Your task to perform on an android device: turn off notifications settings in the gmail app Image 0: 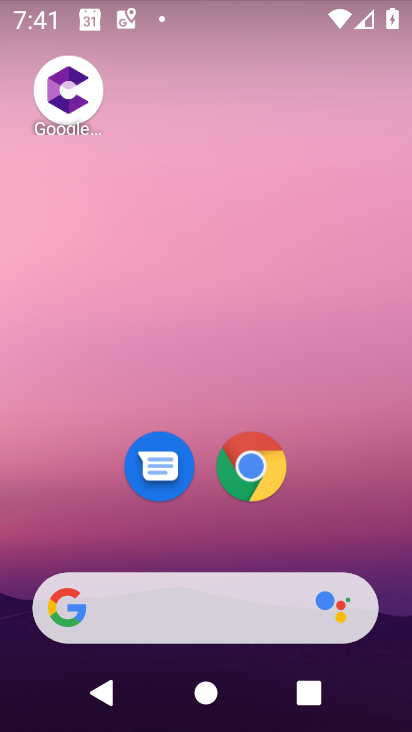
Step 0: drag from (201, 548) to (205, 101)
Your task to perform on an android device: turn off notifications settings in the gmail app Image 1: 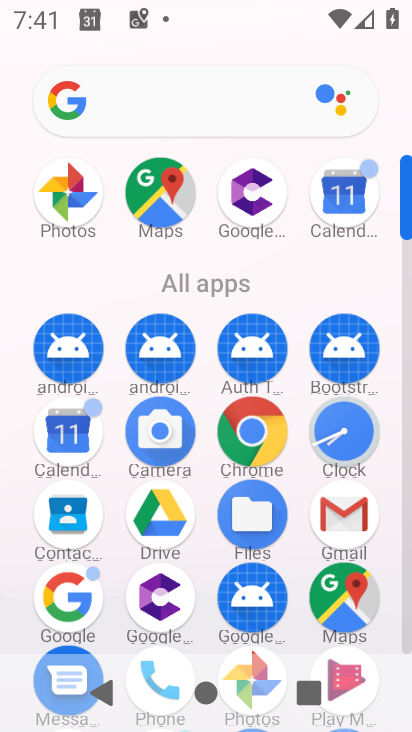
Step 1: click (340, 514)
Your task to perform on an android device: turn off notifications settings in the gmail app Image 2: 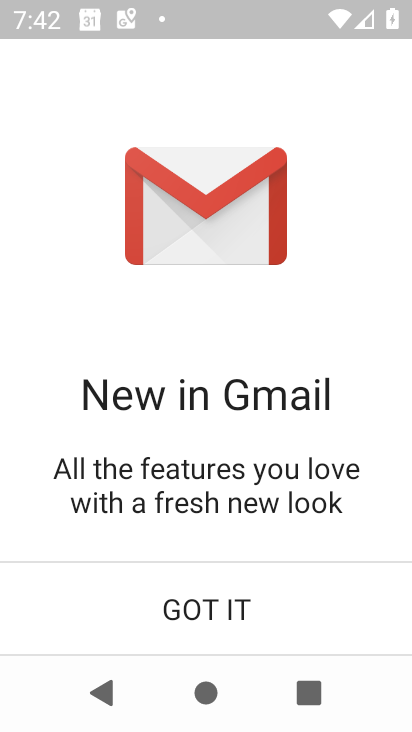
Step 2: click (210, 611)
Your task to perform on an android device: turn off notifications settings in the gmail app Image 3: 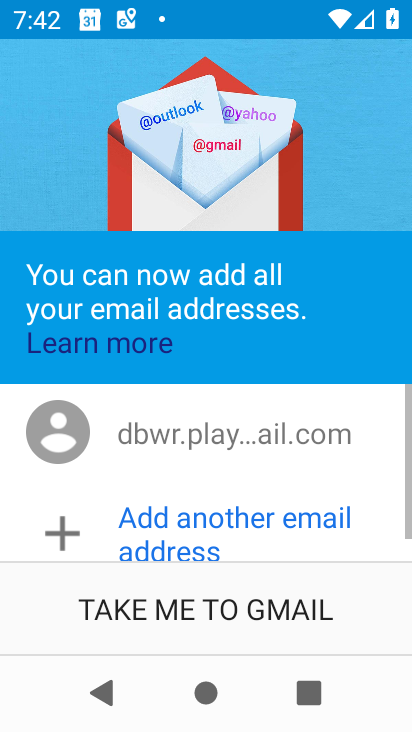
Step 3: click (210, 611)
Your task to perform on an android device: turn off notifications settings in the gmail app Image 4: 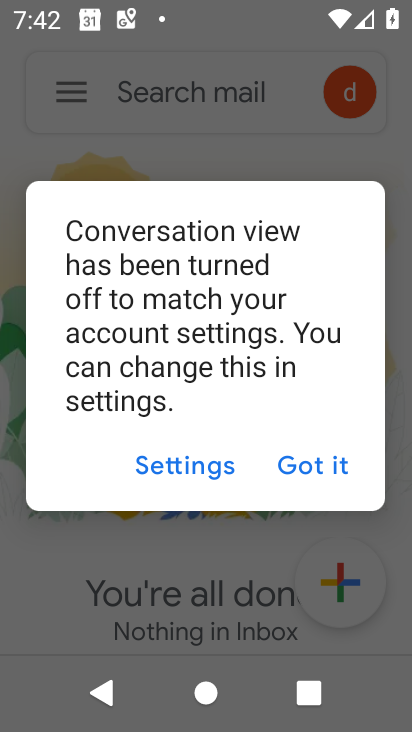
Step 4: click (313, 477)
Your task to perform on an android device: turn off notifications settings in the gmail app Image 5: 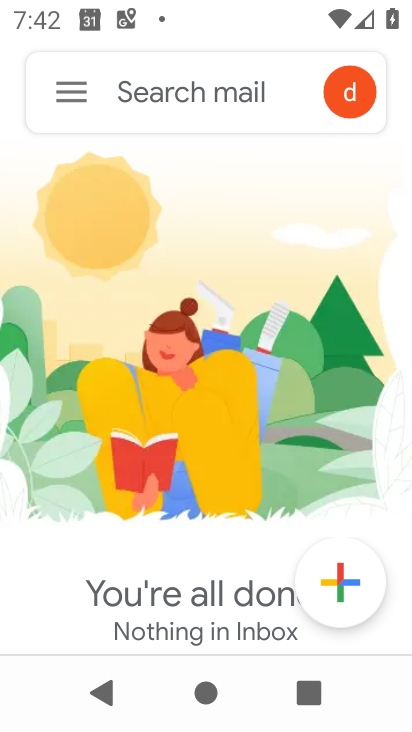
Step 5: click (73, 79)
Your task to perform on an android device: turn off notifications settings in the gmail app Image 6: 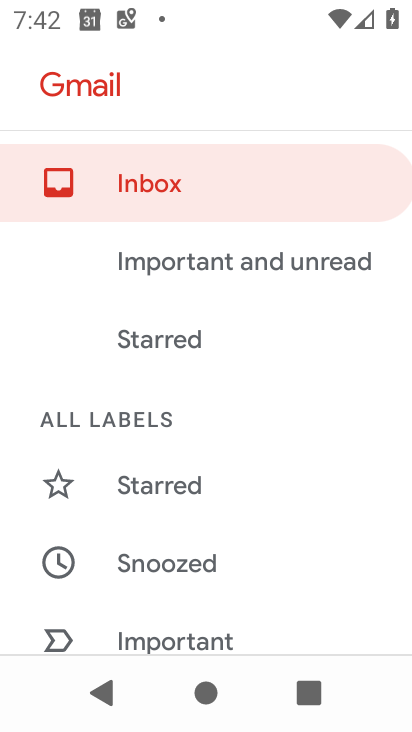
Step 6: drag from (152, 585) to (207, 20)
Your task to perform on an android device: turn off notifications settings in the gmail app Image 7: 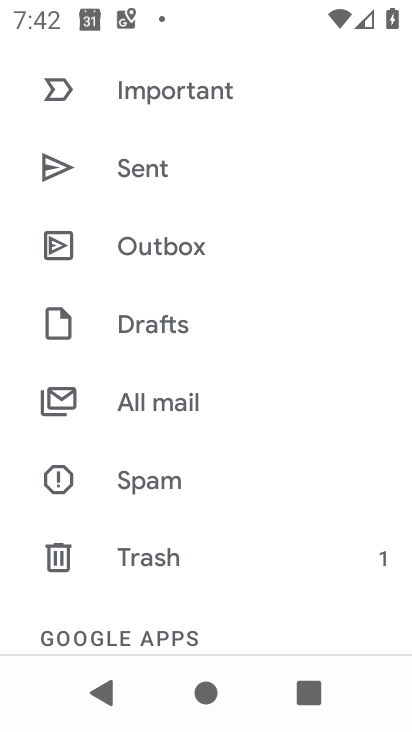
Step 7: drag from (179, 594) to (251, 61)
Your task to perform on an android device: turn off notifications settings in the gmail app Image 8: 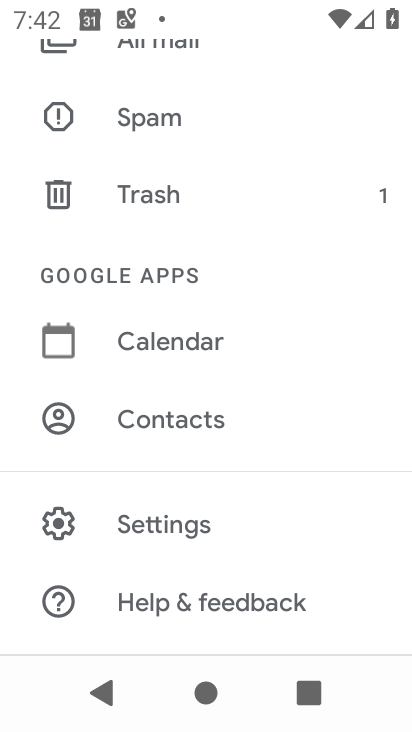
Step 8: click (174, 526)
Your task to perform on an android device: turn off notifications settings in the gmail app Image 9: 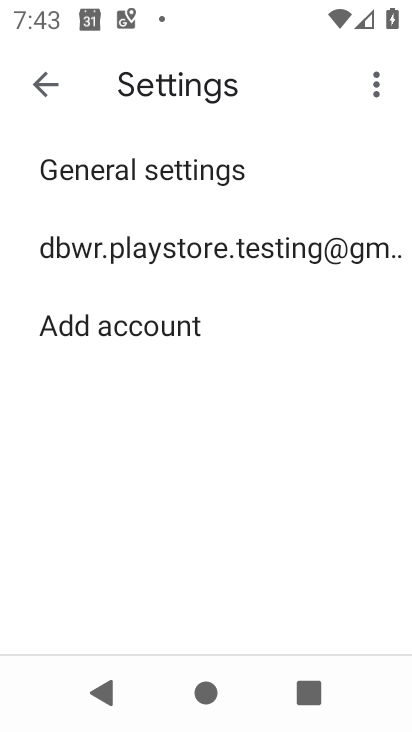
Step 9: click (148, 173)
Your task to perform on an android device: turn off notifications settings in the gmail app Image 10: 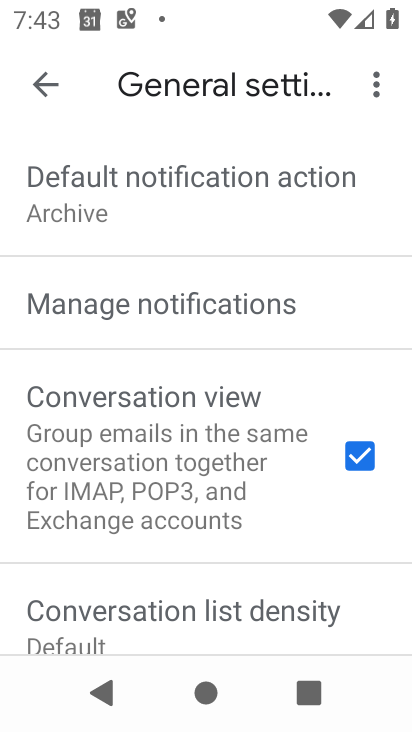
Step 10: click (172, 283)
Your task to perform on an android device: turn off notifications settings in the gmail app Image 11: 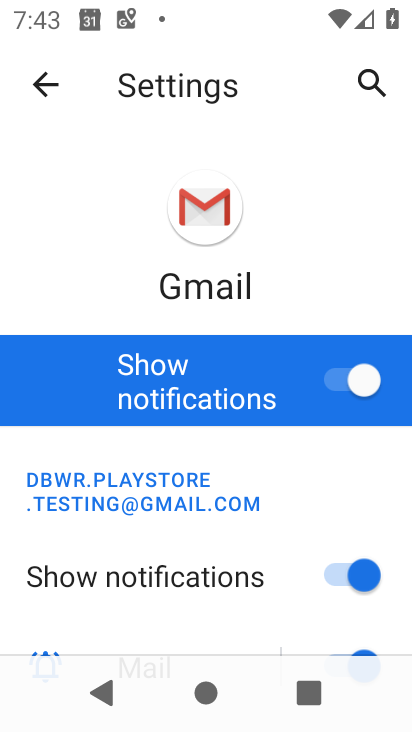
Step 11: click (346, 387)
Your task to perform on an android device: turn off notifications settings in the gmail app Image 12: 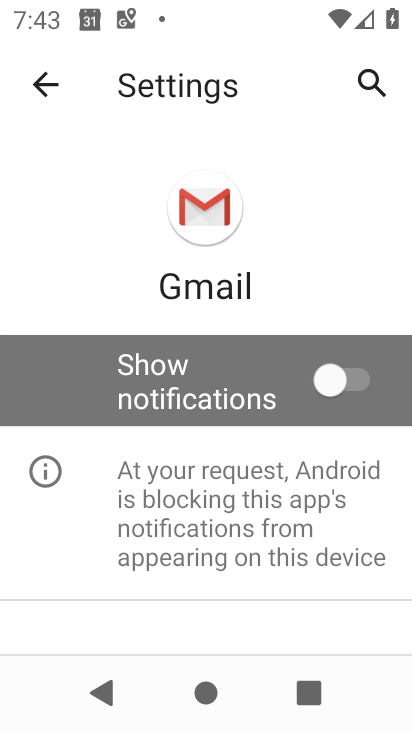
Step 12: task complete